Your task to perform on an android device: Go to wifi settings Image 0: 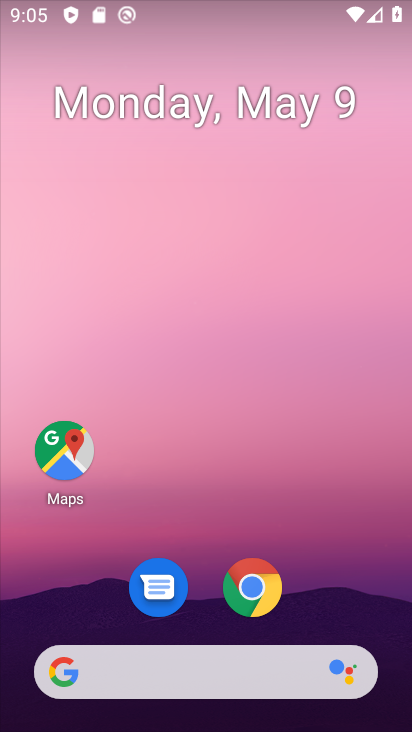
Step 0: click (266, 579)
Your task to perform on an android device: Go to wifi settings Image 1: 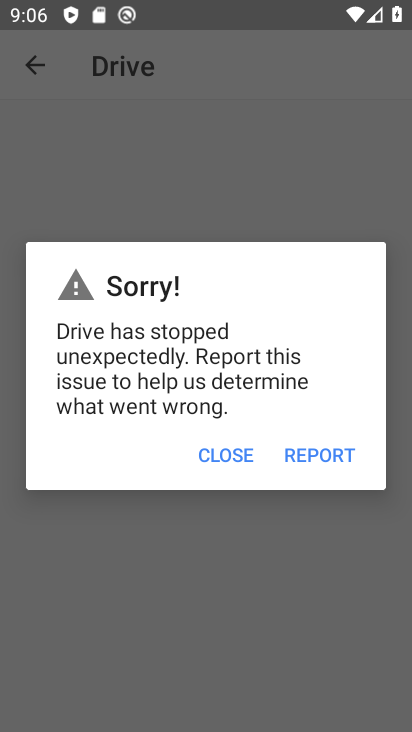
Step 1: drag from (48, 14) to (136, 580)
Your task to perform on an android device: Go to wifi settings Image 2: 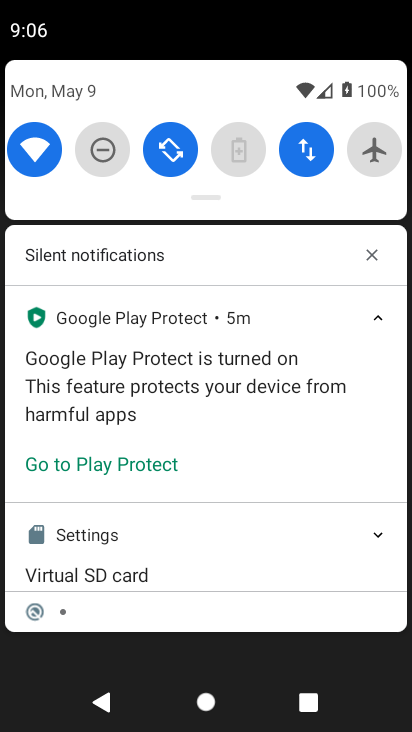
Step 2: click (32, 170)
Your task to perform on an android device: Go to wifi settings Image 3: 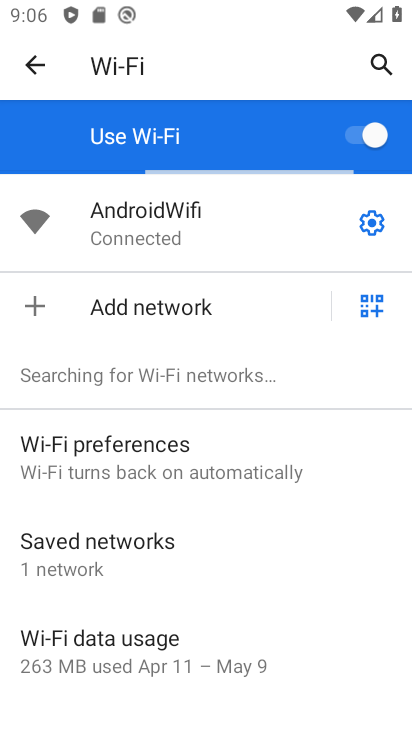
Step 3: task complete